Your task to perform on an android device: refresh tabs in the chrome app Image 0: 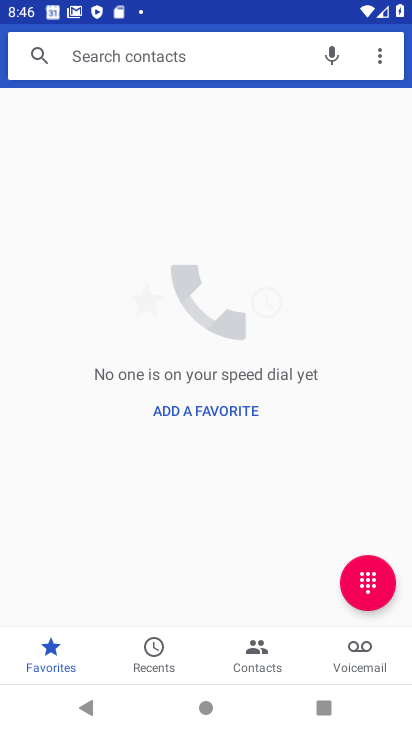
Step 0: press home button
Your task to perform on an android device: refresh tabs in the chrome app Image 1: 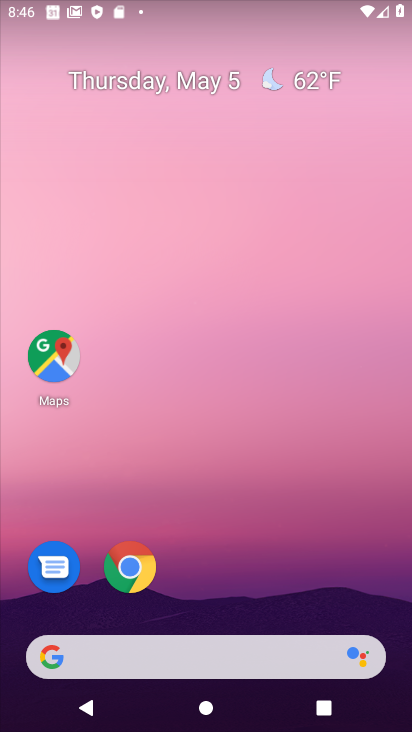
Step 1: click (133, 577)
Your task to perform on an android device: refresh tabs in the chrome app Image 2: 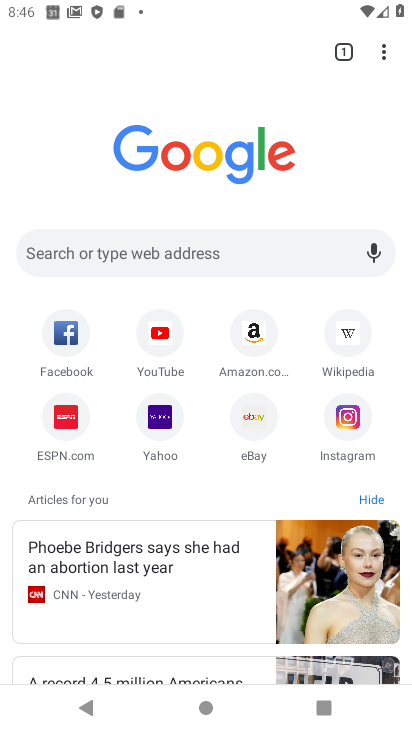
Step 2: click (385, 49)
Your task to perform on an android device: refresh tabs in the chrome app Image 3: 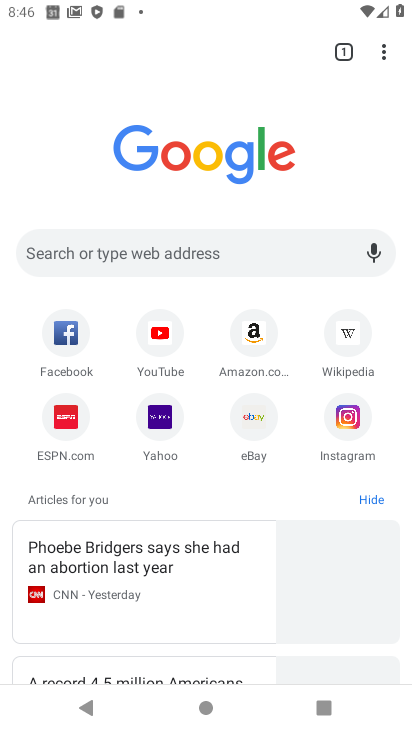
Step 3: click (378, 56)
Your task to perform on an android device: refresh tabs in the chrome app Image 4: 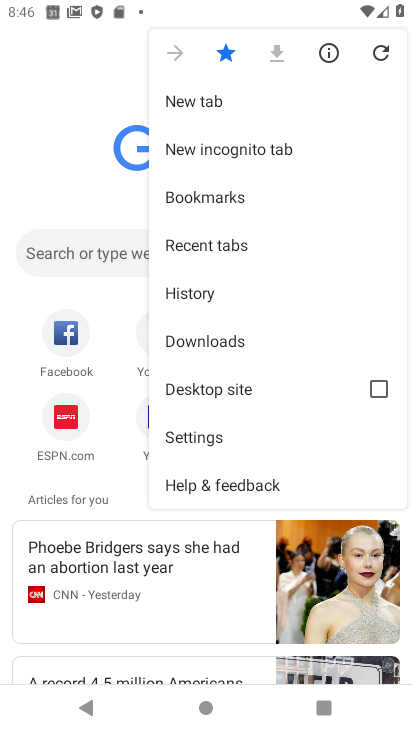
Step 4: click (377, 57)
Your task to perform on an android device: refresh tabs in the chrome app Image 5: 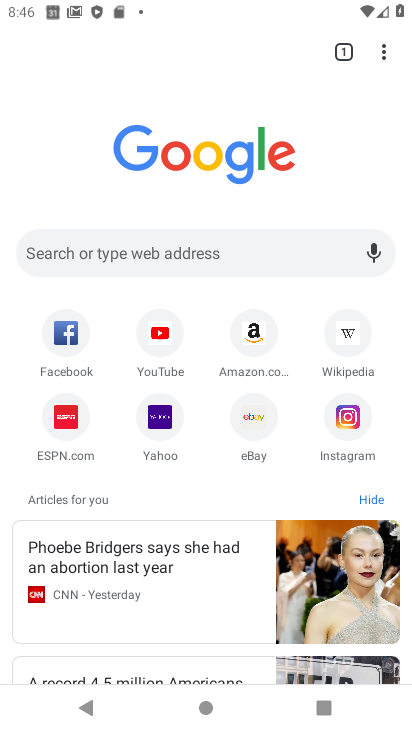
Step 5: task complete